Your task to perform on an android device: open sync settings in chrome Image 0: 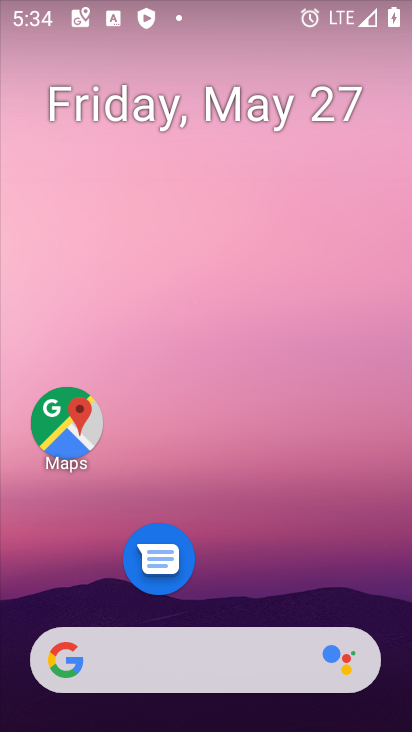
Step 0: click (408, 703)
Your task to perform on an android device: open sync settings in chrome Image 1: 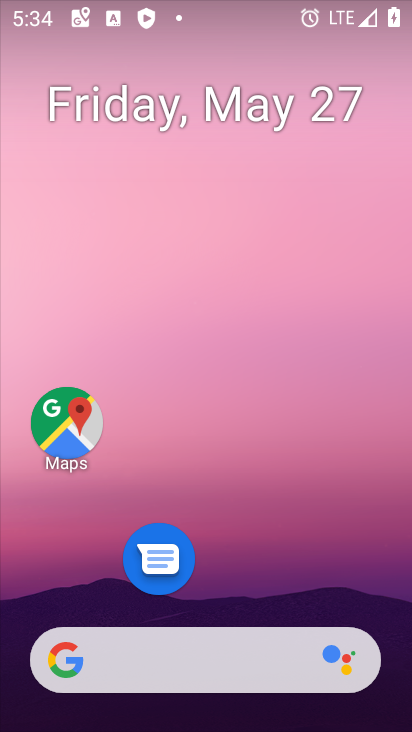
Step 1: drag from (334, 661) to (268, 23)
Your task to perform on an android device: open sync settings in chrome Image 2: 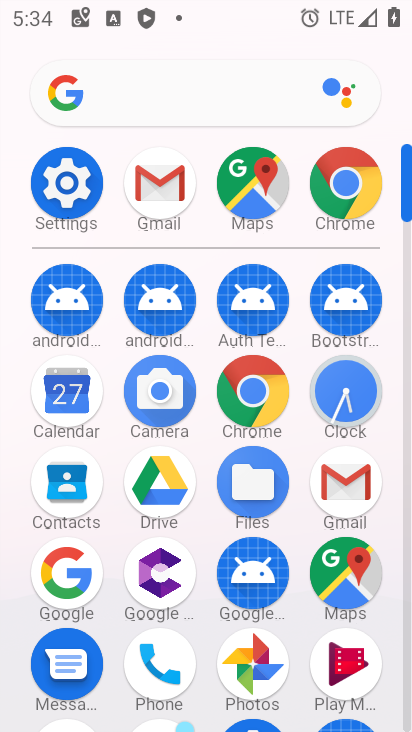
Step 2: click (266, 386)
Your task to perform on an android device: open sync settings in chrome Image 3: 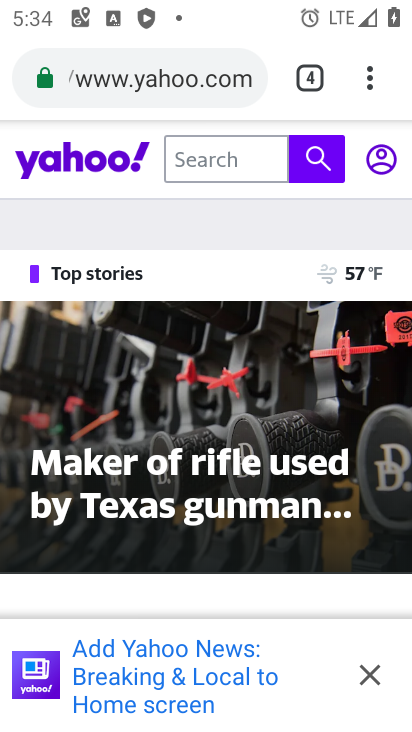
Step 3: drag from (363, 72) to (205, 627)
Your task to perform on an android device: open sync settings in chrome Image 4: 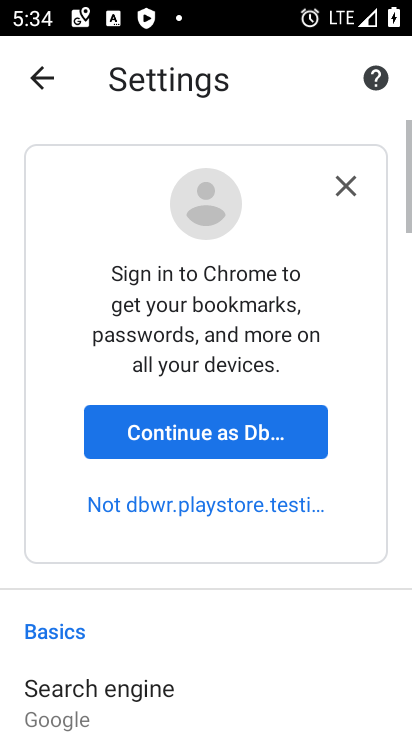
Step 4: drag from (311, 640) to (301, 39)
Your task to perform on an android device: open sync settings in chrome Image 5: 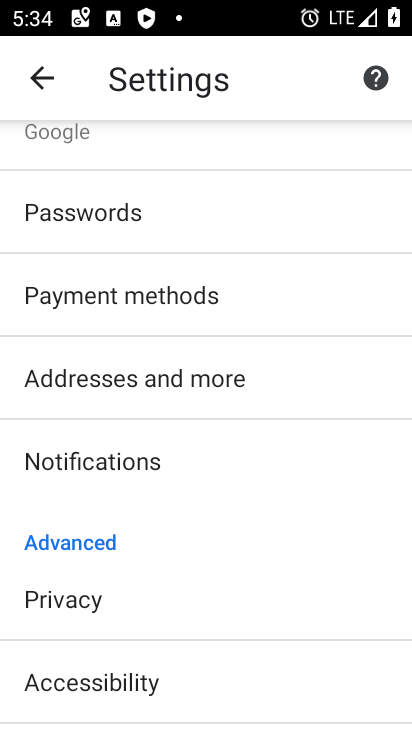
Step 5: drag from (234, 684) to (281, 232)
Your task to perform on an android device: open sync settings in chrome Image 6: 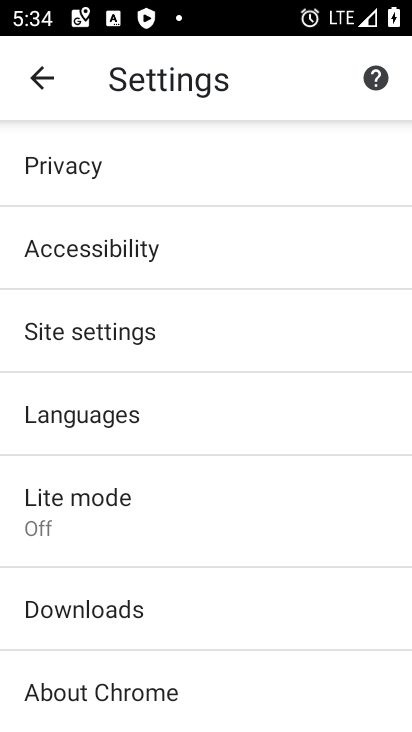
Step 6: click (191, 327)
Your task to perform on an android device: open sync settings in chrome Image 7: 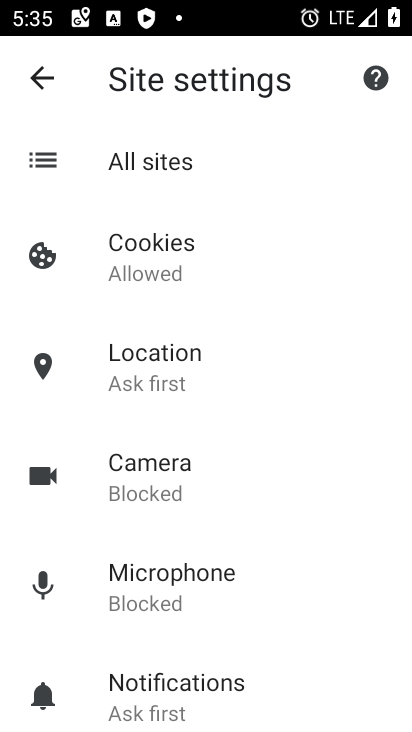
Step 7: drag from (257, 694) to (291, 174)
Your task to perform on an android device: open sync settings in chrome Image 8: 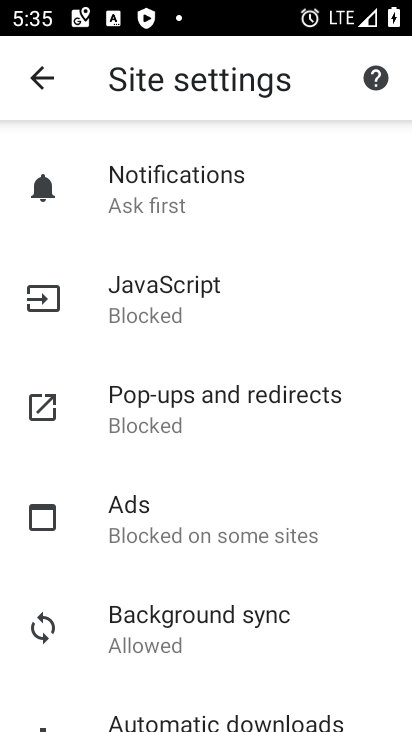
Step 8: click (205, 613)
Your task to perform on an android device: open sync settings in chrome Image 9: 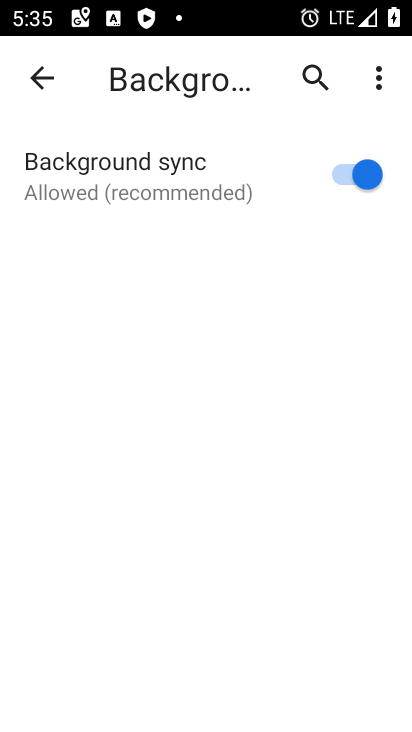
Step 9: task complete